Your task to perform on an android device: turn off location Image 0: 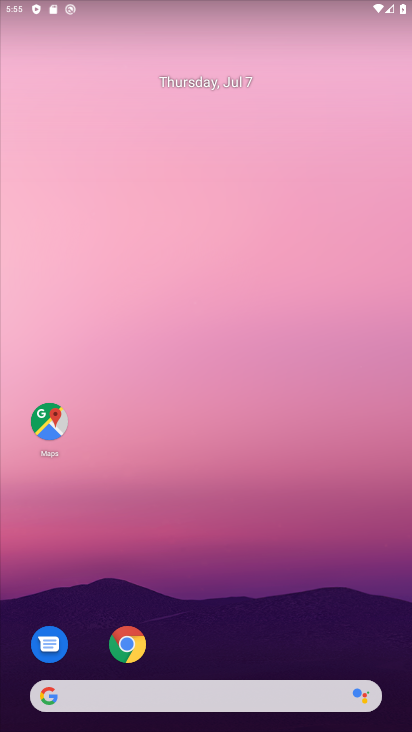
Step 0: drag from (298, 661) to (250, 130)
Your task to perform on an android device: turn off location Image 1: 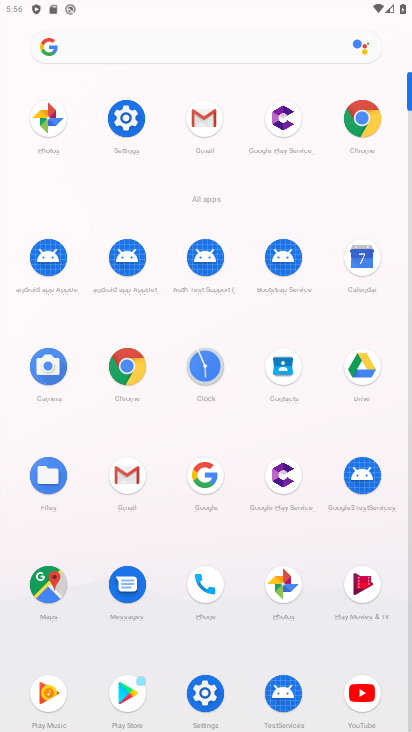
Step 1: click (121, 143)
Your task to perform on an android device: turn off location Image 2: 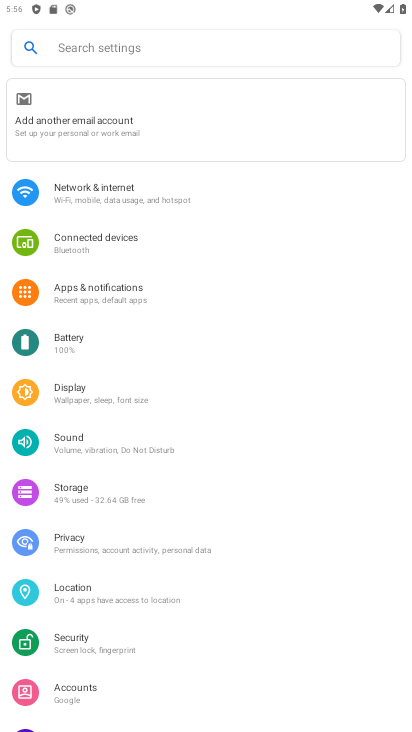
Step 2: click (121, 592)
Your task to perform on an android device: turn off location Image 3: 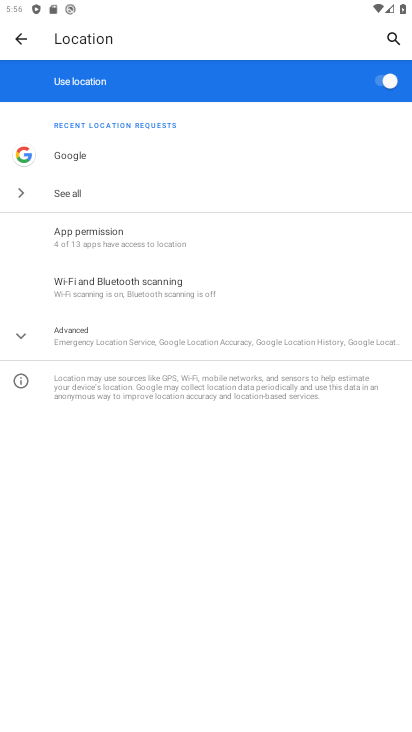
Step 3: click (341, 83)
Your task to perform on an android device: turn off location Image 4: 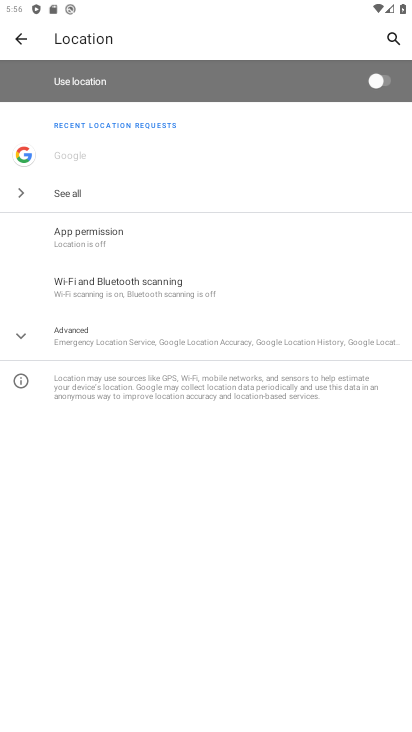
Step 4: task complete